Your task to perform on an android device: delete a single message in the gmail app Image 0: 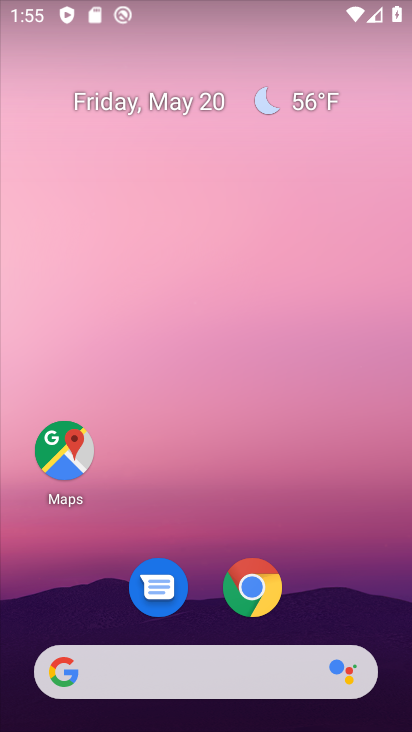
Step 0: drag from (351, 548) to (311, 146)
Your task to perform on an android device: delete a single message in the gmail app Image 1: 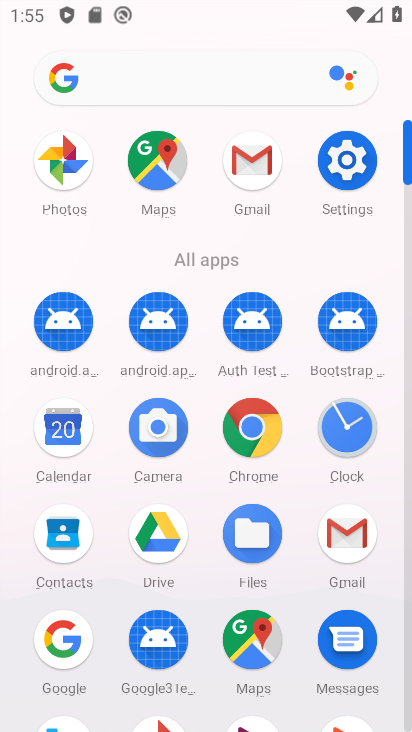
Step 1: click (345, 546)
Your task to perform on an android device: delete a single message in the gmail app Image 2: 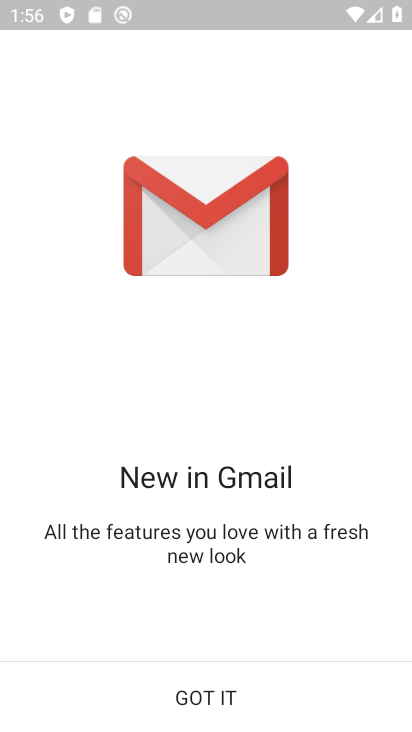
Step 2: click (248, 710)
Your task to perform on an android device: delete a single message in the gmail app Image 3: 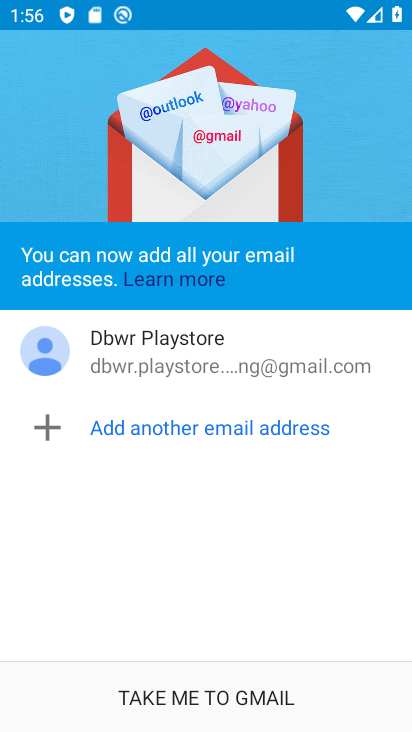
Step 3: click (257, 693)
Your task to perform on an android device: delete a single message in the gmail app Image 4: 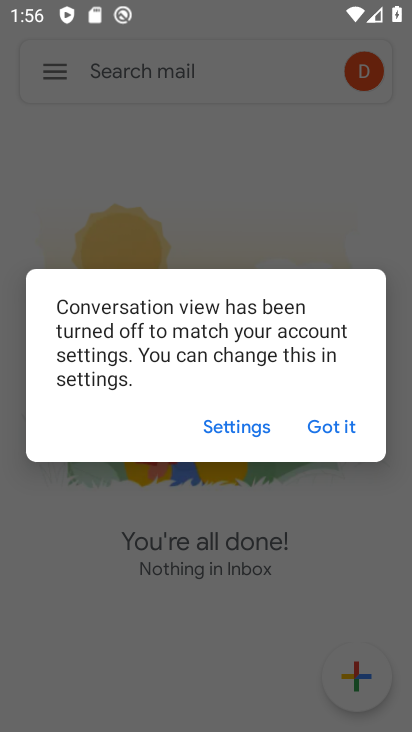
Step 4: click (340, 411)
Your task to perform on an android device: delete a single message in the gmail app Image 5: 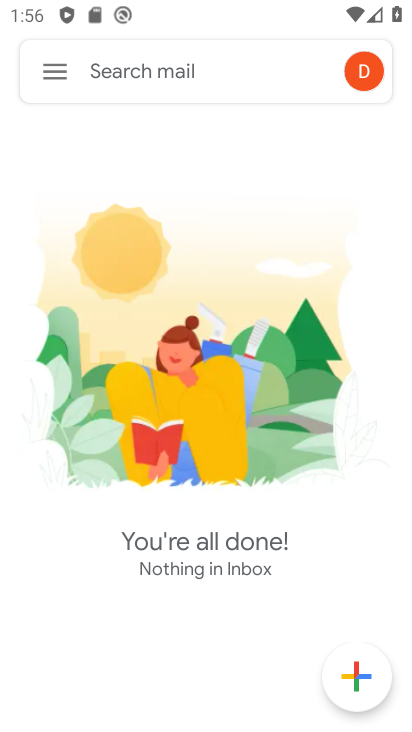
Step 5: task complete